Your task to perform on an android device: turn off data saver in the chrome app Image 0: 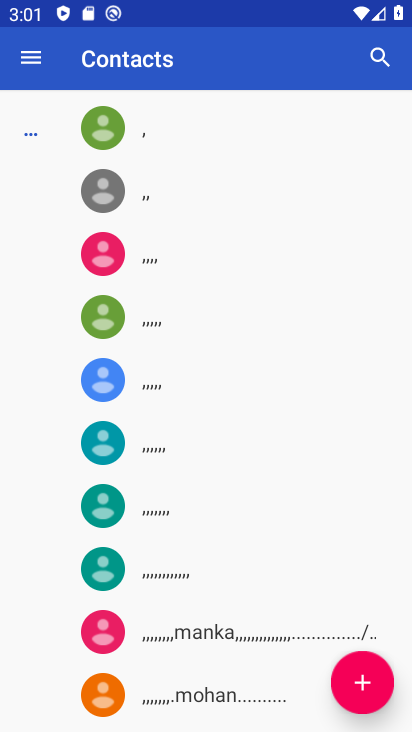
Step 0: press home button
Your task to perform on an android device: turn off data saver in the chrome app Image 1: 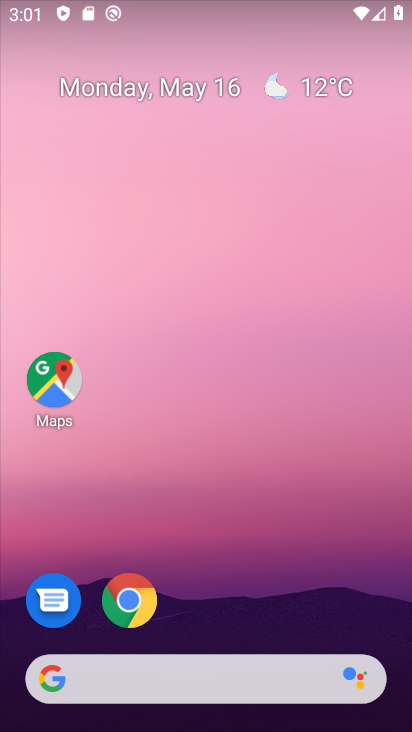
Step 1: drag from (239, 642) to (249, 14)
Your task to perform on an android device: turn off data saver in the chrome app Image 2: 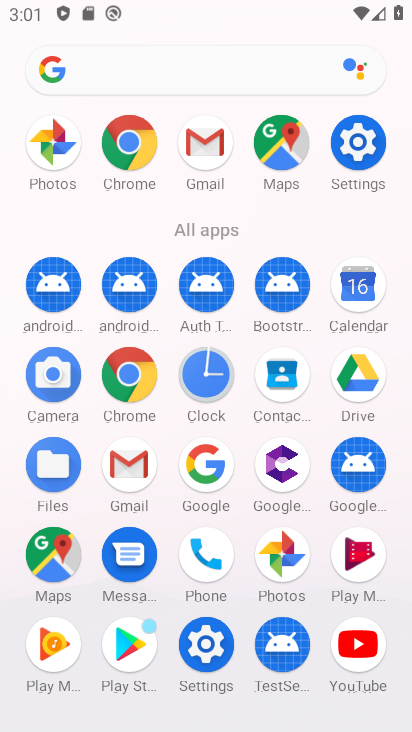
Step 2: click (128, 393)
Your task to perform on an android device: turn off data saver in the chrome app Image 3: 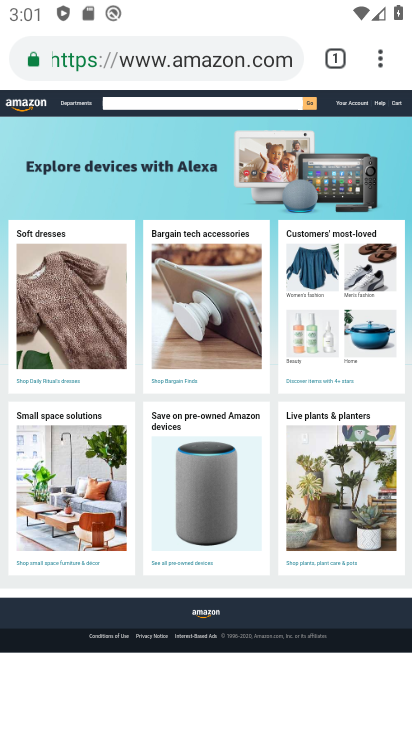
Step 3: click (374, 58)
Your task to perform on an android device: turn off data saver in the chrome app Image 4: 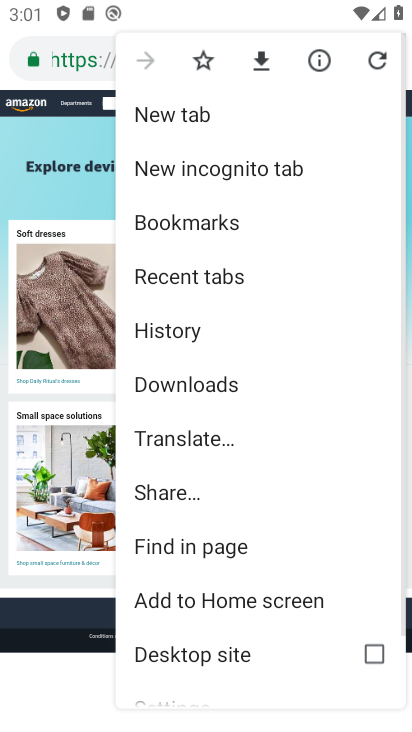
Step 4: drag from (208, 655) to (220, 21)
Your task to perform on an android device: turn off data saver in the chrome app Image 5: 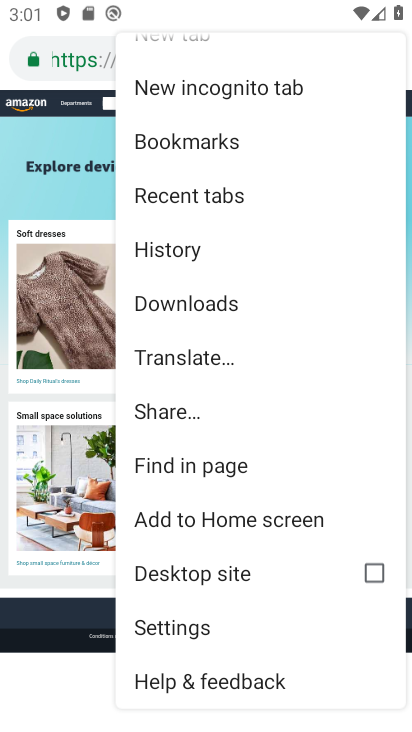
Step 5: click (185, 616)
Your task to perform on an android device: turn off data saver in the chrome app Image 6: 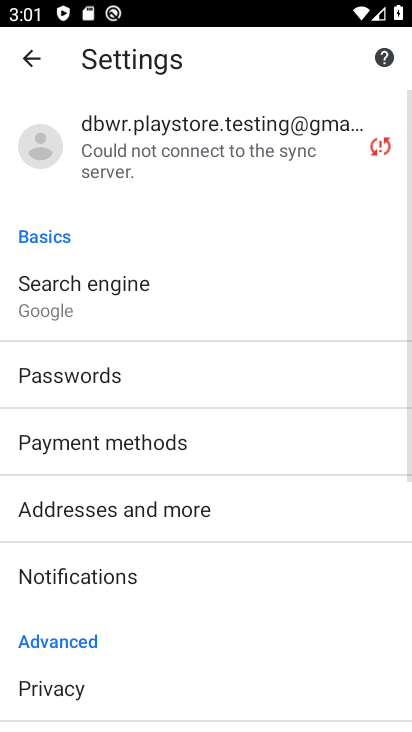
Step 6: drag from (211, 610) to (182, 215)
Your task to perform on an android device: turn off data saver in the chrome app Image 7: 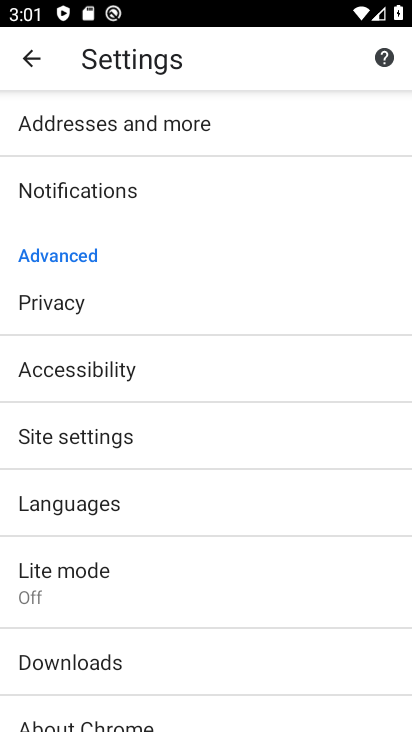
Step 7: click (96, 585)
Your task to perform on an android device: turn off data saver in the chrome app Image 8: 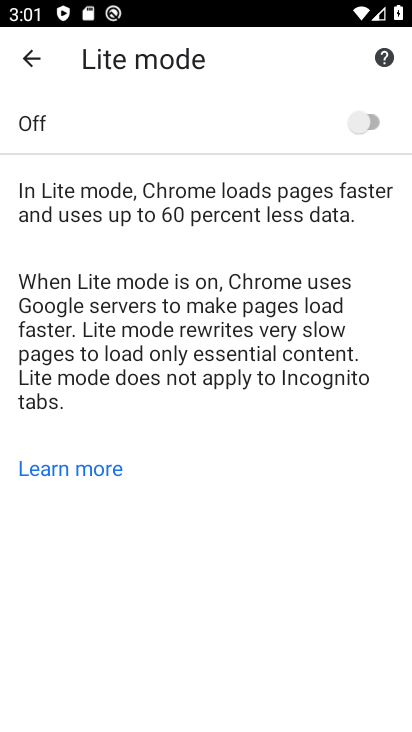
Step 8: task complete